Your task to perform on an android device: Check the weather Image 0: 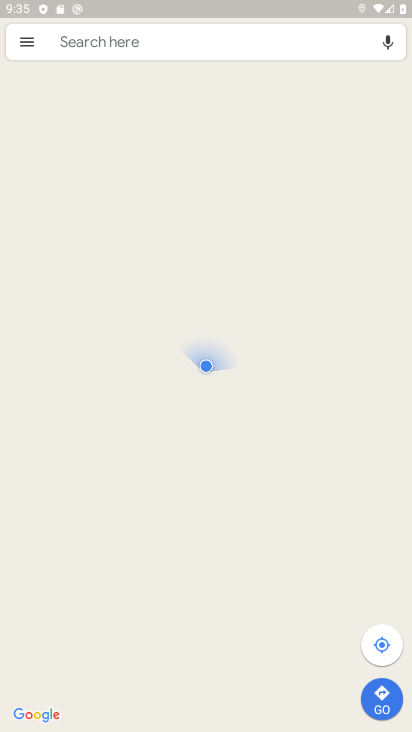
Step 0: press home button
Your task to perform on an android device: Check the weather Image 1: 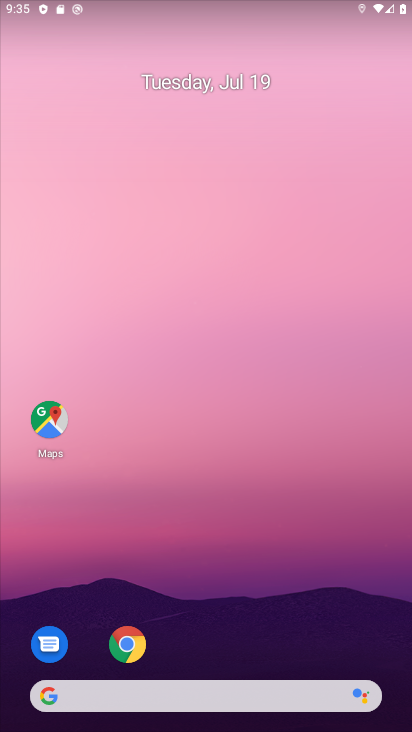
Step 1: click (118, 644)
Your task to perform on an android device: Check the weather Image 2: 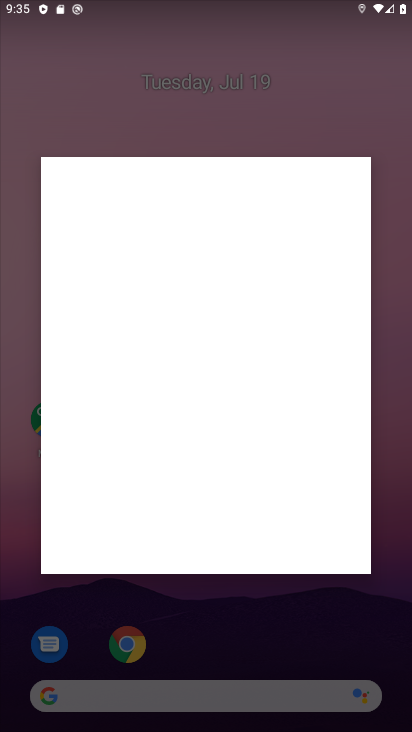
Step 2: click (140, 661)
Your task to perform on an android device: Check the weather Image 3: 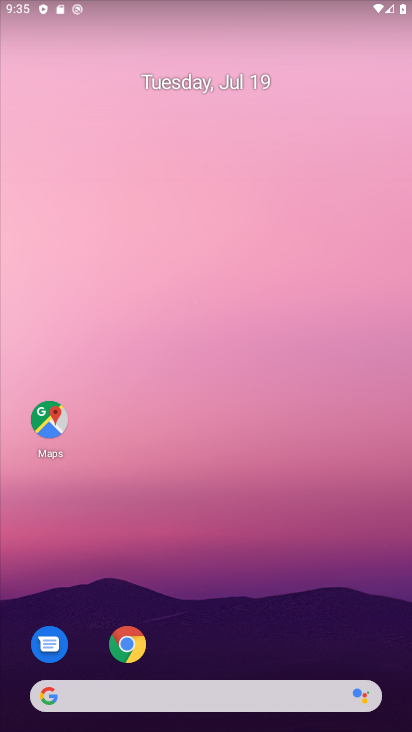
Step 3: click (121, 646)
Your task to perform on an android device: Check the weather Image 4: 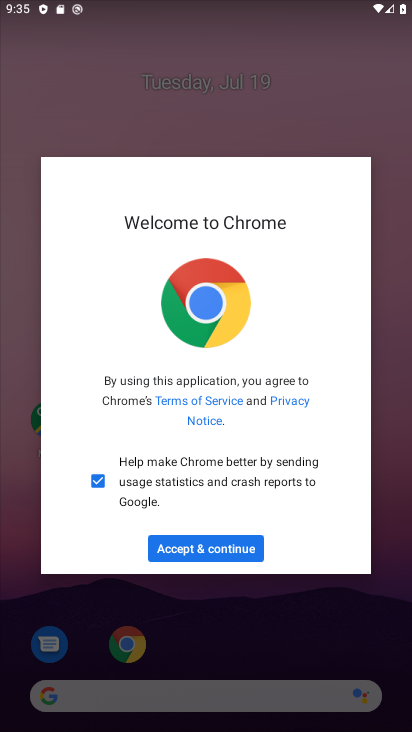
Step 4: click (217, 555)
Your task to perform on an android device: Check the weather Image 5: 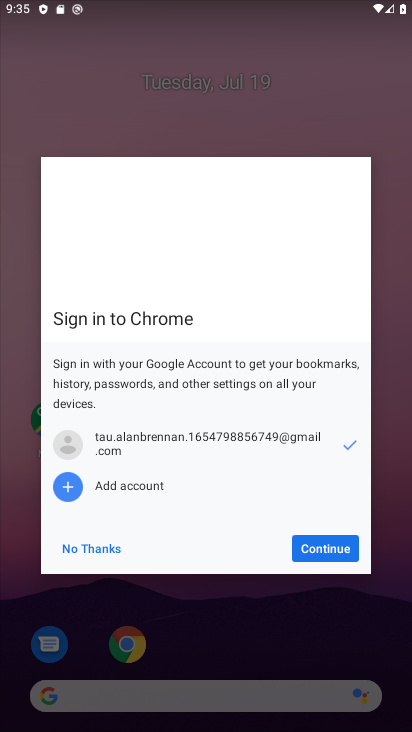
Step 5: click (326, 558)
Your task to perform on an android device: Check the weather Image 6: 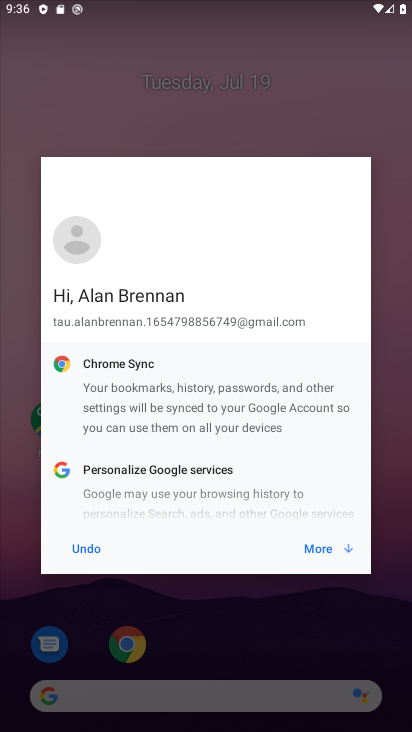
Step 6: click (326, 558)
Your task to perform on an android device: Check the weather Image 7: 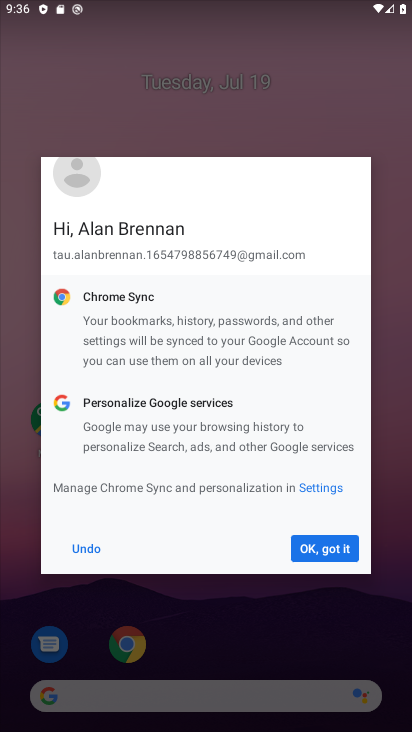
Step 7: click (327, 558)
Your task to perform on an android device: Check the weather Image 8: 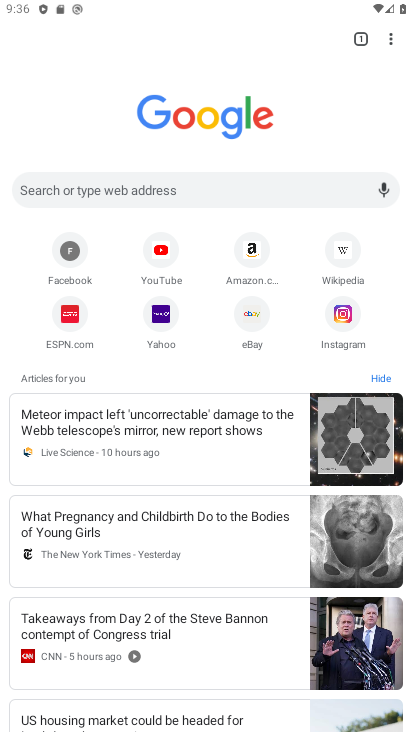
Step 8: click (183, 174)
Your task to perform on an android device: Check the weather Image 9: 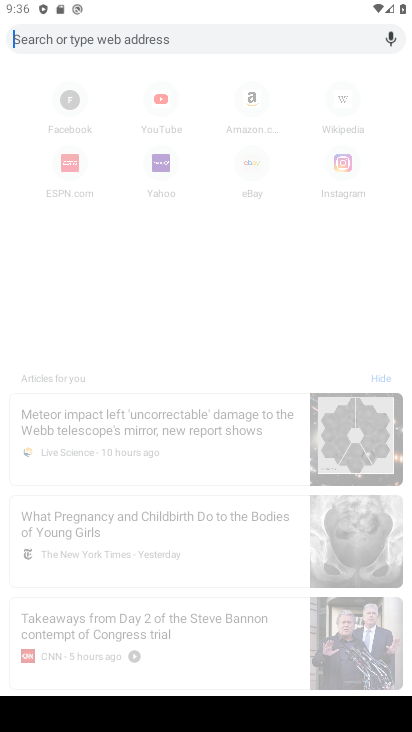
Step 9: type "Check the weather"
Your task to perform on an android device: Check the weather Image 10: 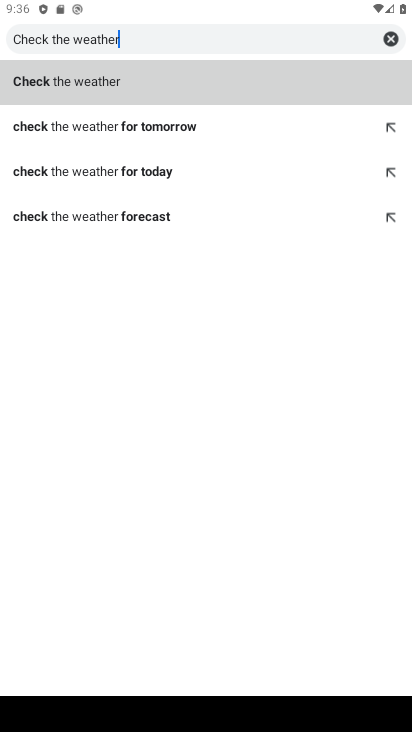
Step 10: click (163, 82)
Your task to perform on an android device: Check the weather Image 11: 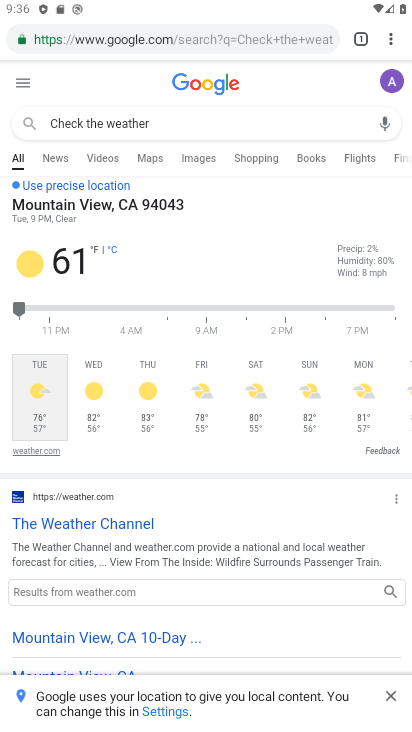
Step 11: task complete